Your task to perform on an android device: change the clock display to show seconds Image 0: 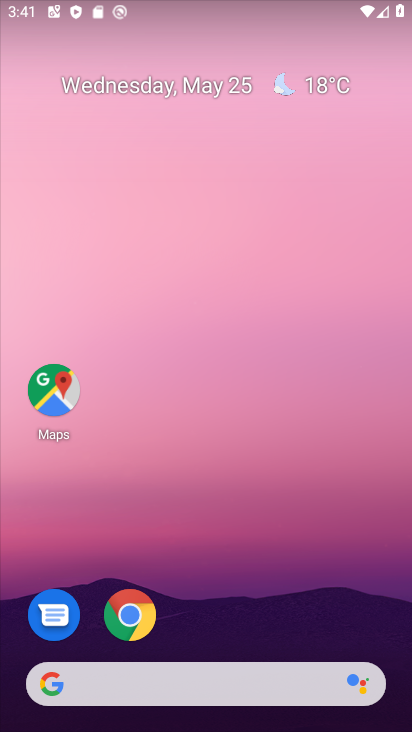
Step 0: click (406, 470)
Your task to perform on an android device: change the clock display to show seconds Image 1: 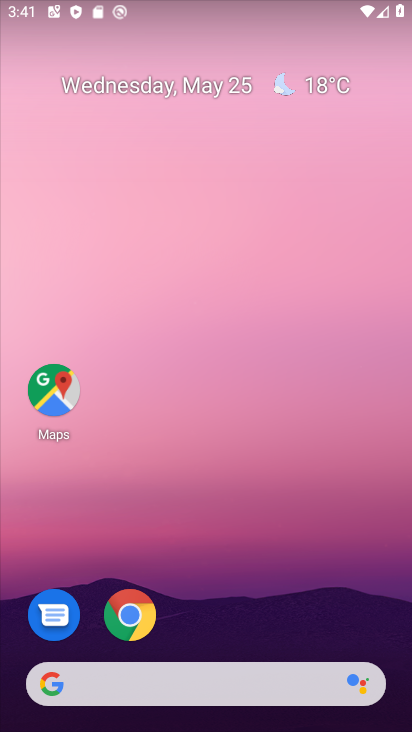
Step 1: drag from (277, 660) to (321, 4)
Your task to perform on an android device: change the clock display to show seconds Image 2: 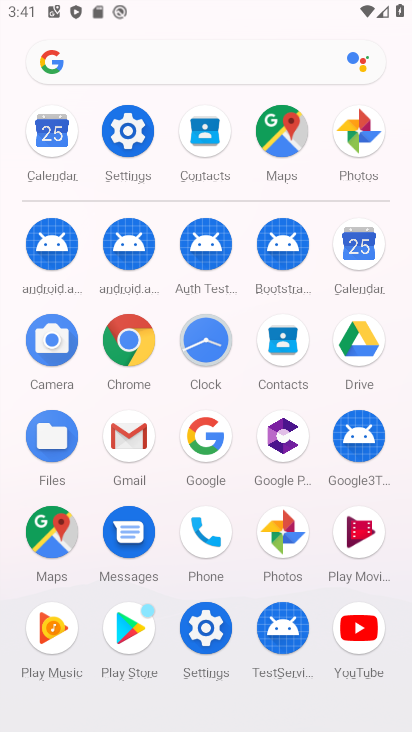
Step 2: click (198, 348)
Your task to perform on an android device: change the clock display to show seconds Image 3: 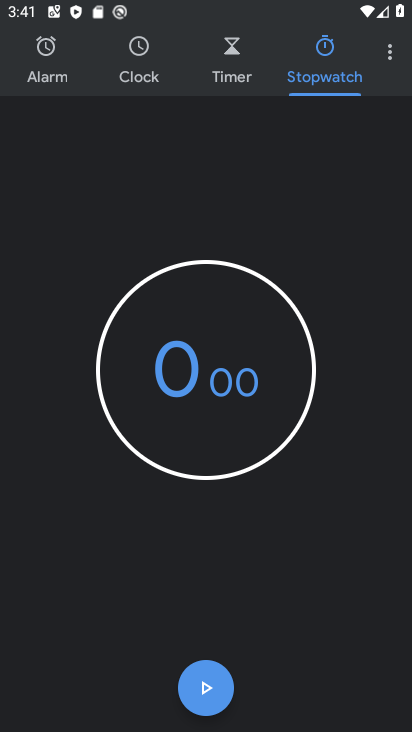
Step 3: click (384, 60)
Your task to perform on an android device: change the clock display to show seconds Image 4: 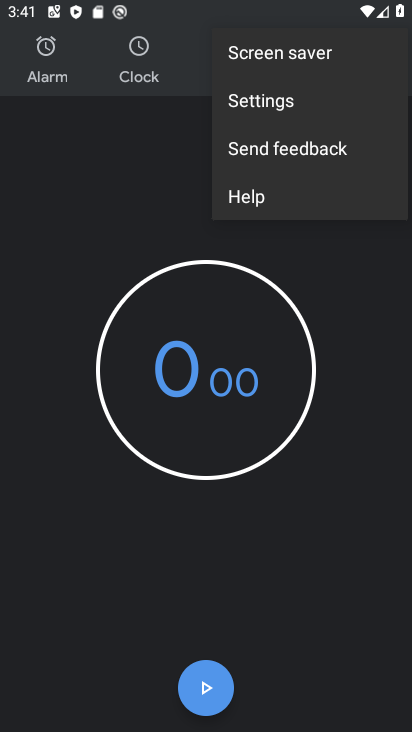
Step 4: click (295, 99)
Your task to perform on an android device: change the clock display to show seconds Image 5: 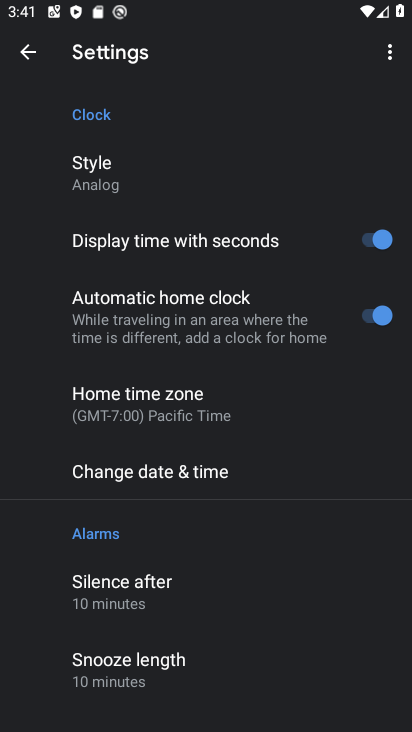
Step 5: task complete